Your task to perform on an android device: Open battery settings Image 0: 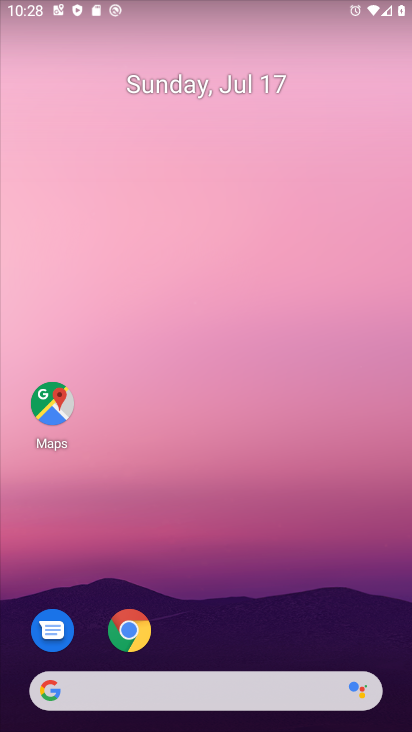
Step 0: drag from (300, 639) to (341, 54)
Your task to perform on an android device: Open battery settings Image 1: 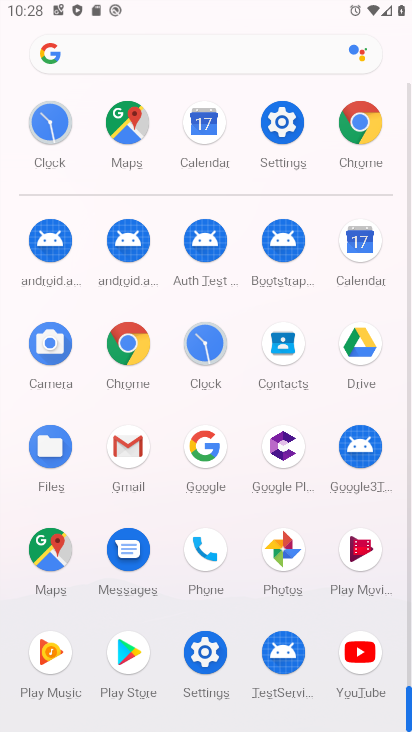
Step 1: click (282, 135)
Your task to perform on an android device: Open battery settings Image 2: 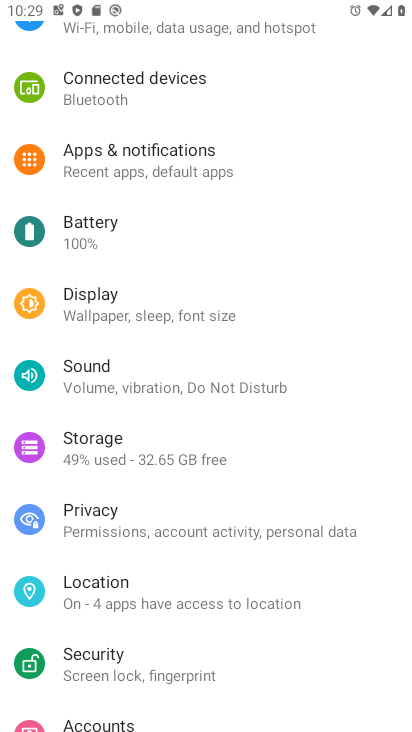
Step 2: drag from (354, 428) to (362, 343)
Your task to perform on an android device: Open battery settings Image 3: 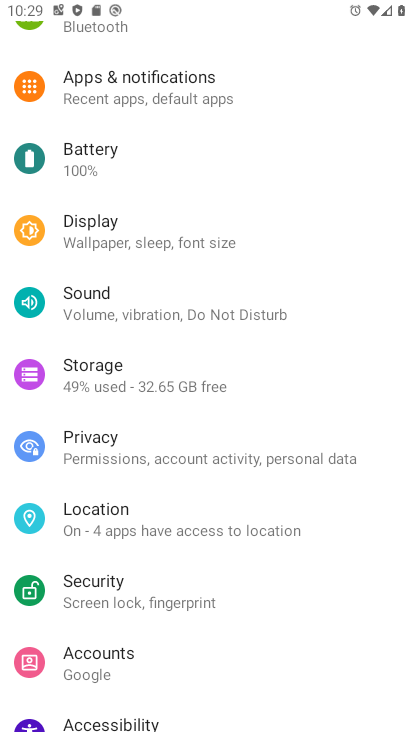
Step 3: drag from (367, 544) to (363, 445)
Your task to perform on an android device: Open battery settings Image 4: 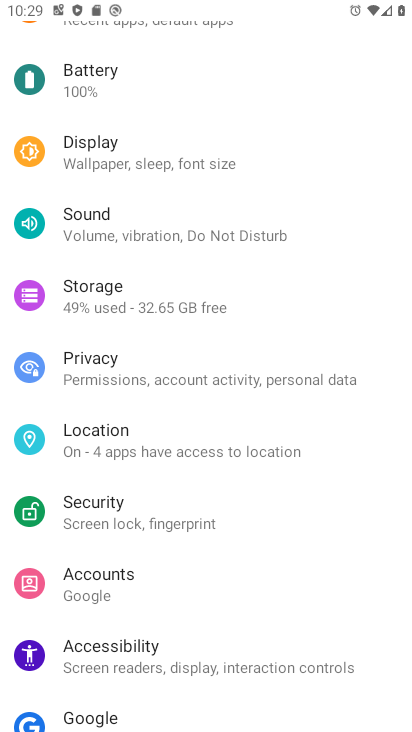
Step 4: drag from (350, 456) to (350, 409)
Your task to perform on an android device: Open battery settings Image 5: 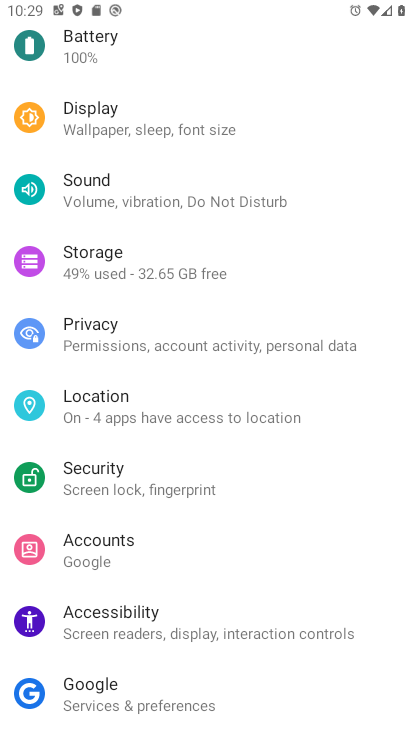
Step 5: drag from (359, 569) to (362, 419)
Your task to perform on an android device: Open battery settings Image 6: 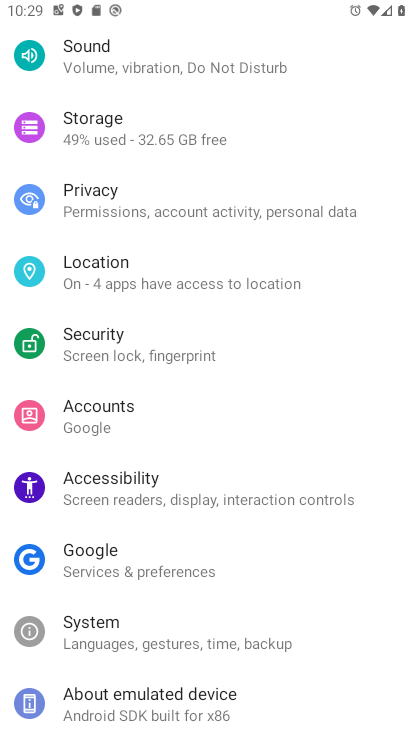
Step 6: drag from (363, 577) to (359, 430)
Your task to perform on an android device: Open battery settings Image 7: 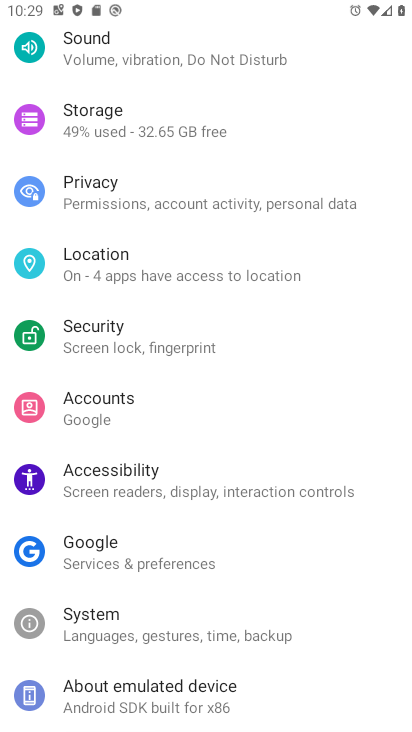
Step 7: drag from (355, 340) to (370, 499)
Your task to perform on an android device: Open battery settings Image 8: 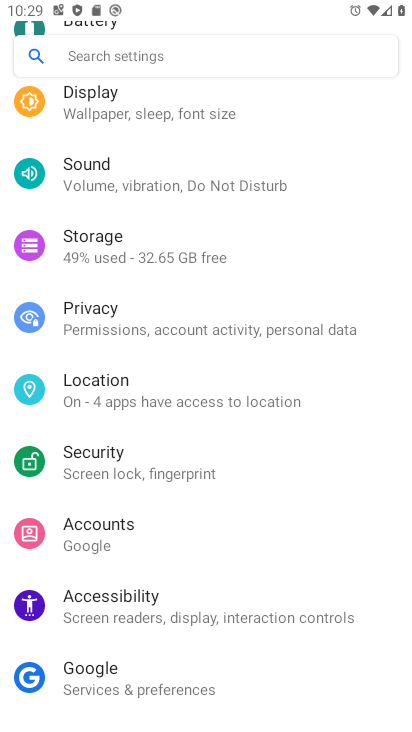
Step 8: drag from (369, 270) to (372, 380)
Your task to perform on an android device: Open battery settings Image 9: 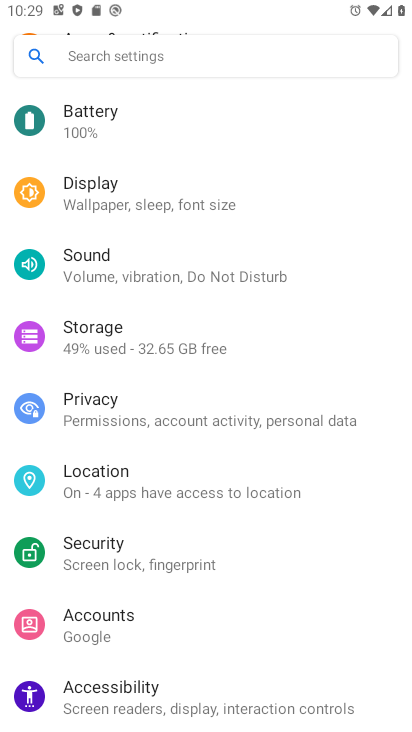
Step 9: drag from (359, 278) to (366, 360)
Your task to perform on an android device: Open battery settings Image 10: 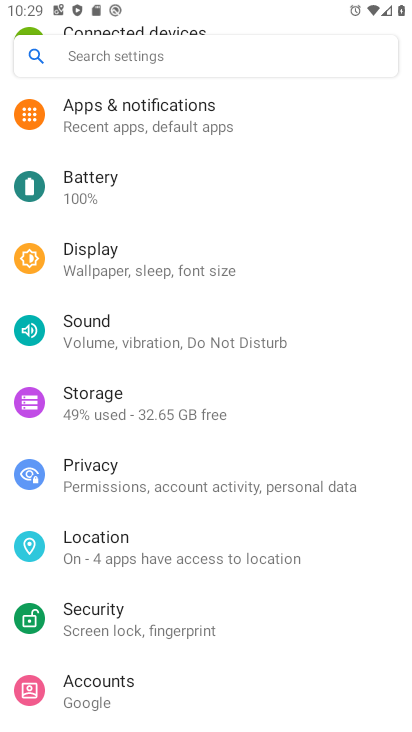
Step 10: drag from (353, 284) to (355, 364)
Your task to perform on an android device: Open battery settings Image 11: 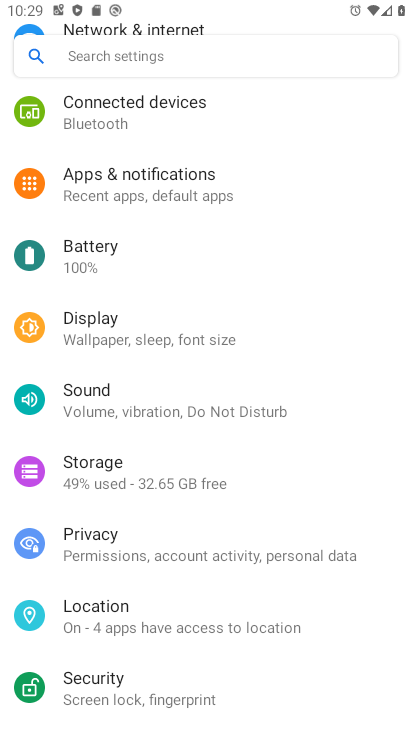
Step 11: drag from (348, 233) to (361, 334)
Your task to perform on an android device: Open battery settings Image 12: 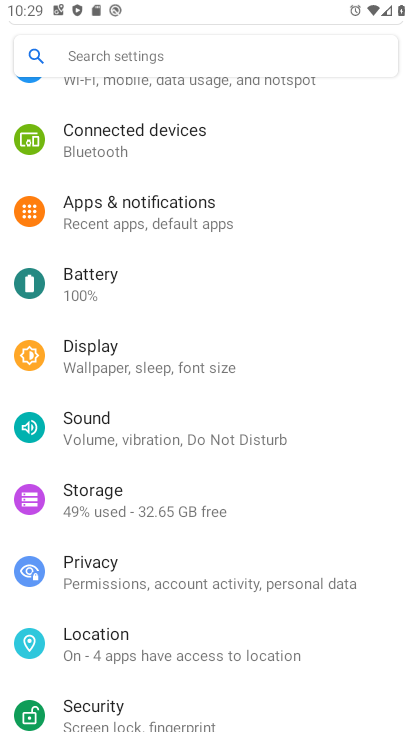
Step 12: drag from (331, 219) to (337, 389)
Your task to perform on an android device: Open battery settings Image 13: 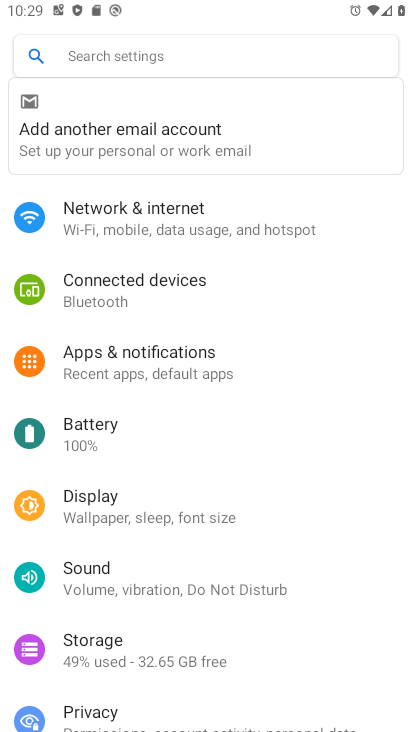
Step 13: click (191, 435)
Your task to perform on an android device: Open battery settings Image 14: 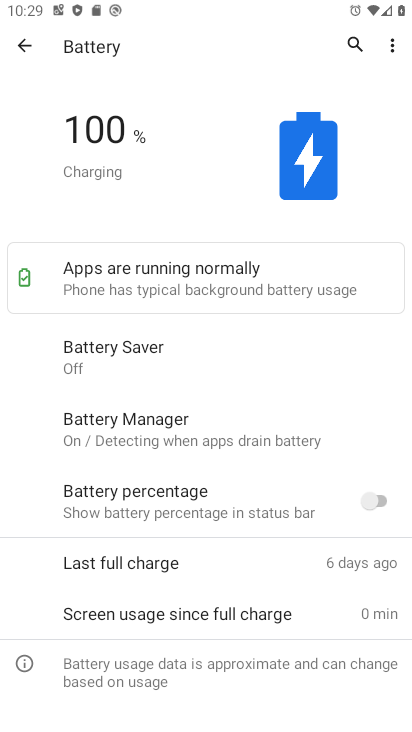
Step 14: task complete